Your task to perform on an android device: open a new tab in the chrome app Image 0: 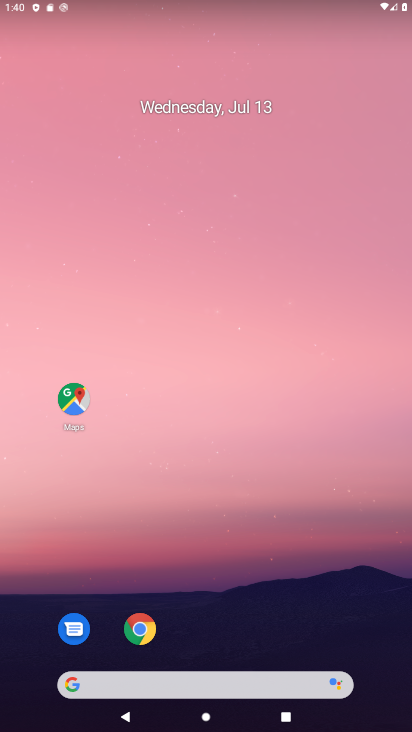
Step 0: click (139, 640)
Your task to perform on an android device: open a new tab in the chrome app Image 1: 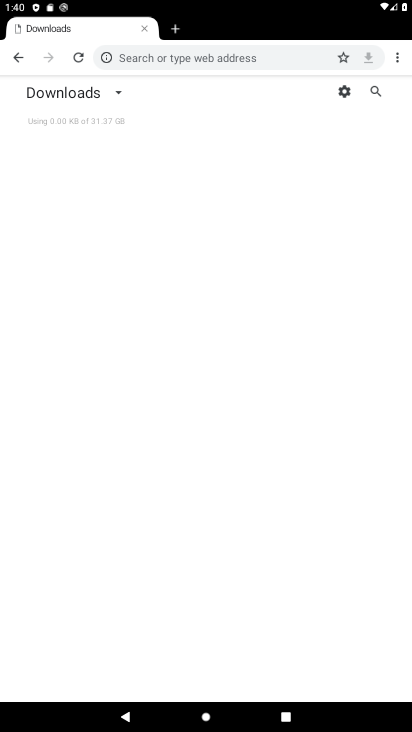
Step 1: click (169, 31)
Your task to perform on an android device: open a new tab in the chrome app Image 2: 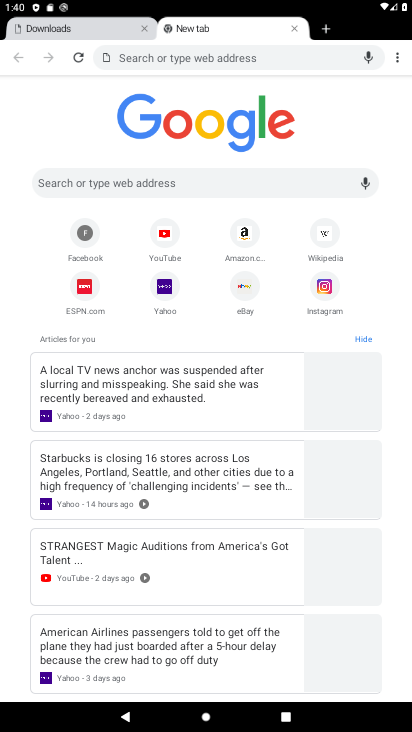
Step 2: task complete